Your task to perform on an android device: Open Youtube and go to "Your channel" Image 0: 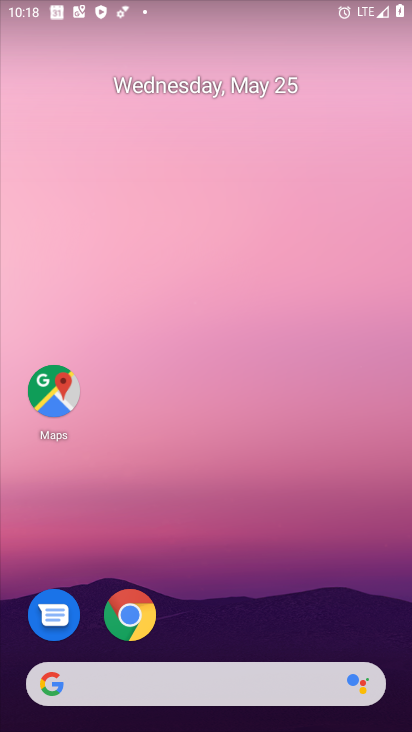
Step 0: drag from (222, 571) to (259, 32)
Your task to perform on an android device: Open Youtube and go to "Your channel" Image 1: 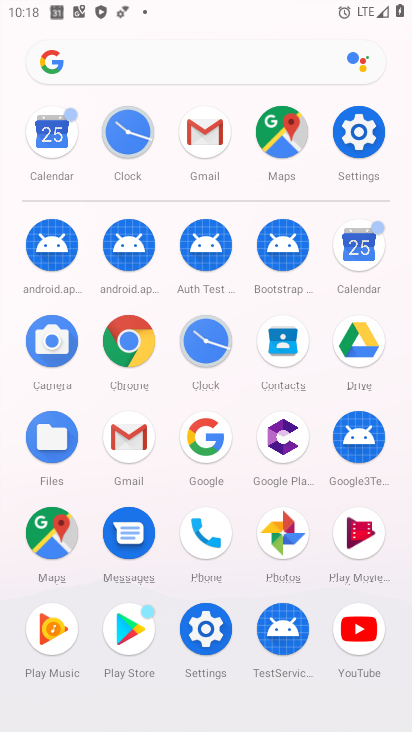
Step 1: click (353, 637)
Your task to perform on an android device: Open Youtube and go to "Your channel" Image 2: 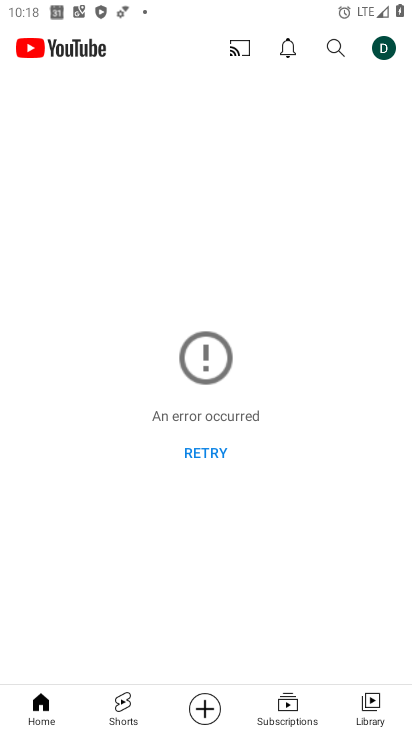
Step 2: click (390, 50)
Your task to perform on an android device: Open Youtube and go to "Your channel" Image 3: 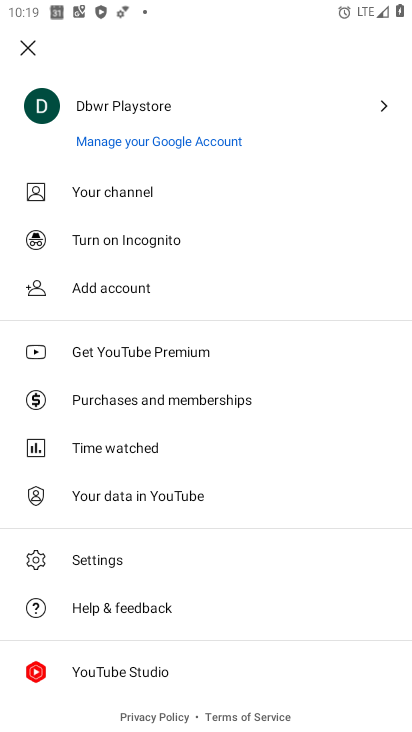
Step 3: click (166, 187)
Your task to perform on an android device: Open Youtube and go to "Your channel" Image 4: 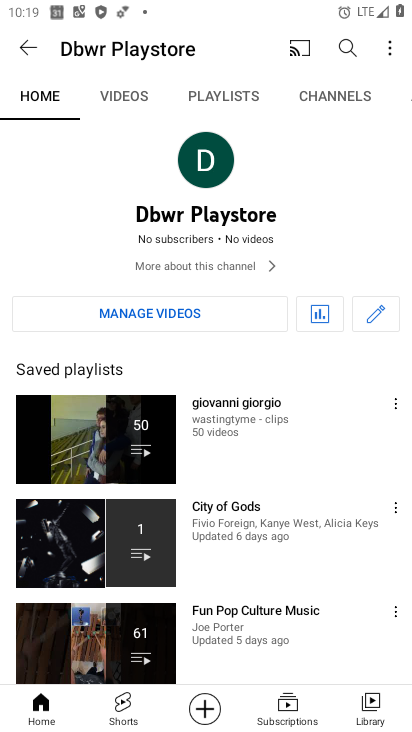
Step 4: task complete